Your task to perform on an android device: delete browsing data in the chrome app Image 0: 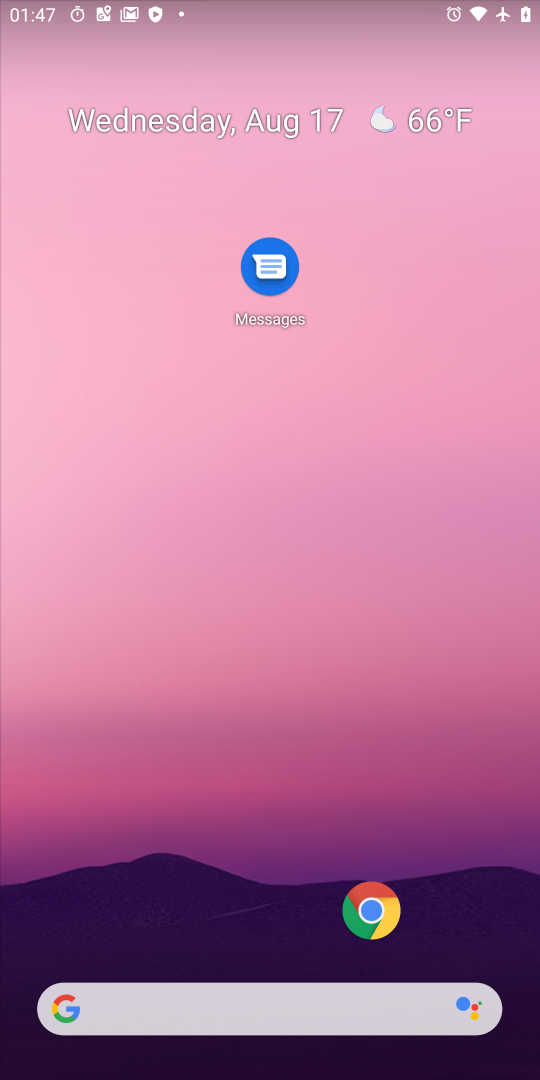
Step 0: drag from (162, 698) to (230, 4)
Your task to perform on an android device: delete browsing data in the chrome app Image 1: 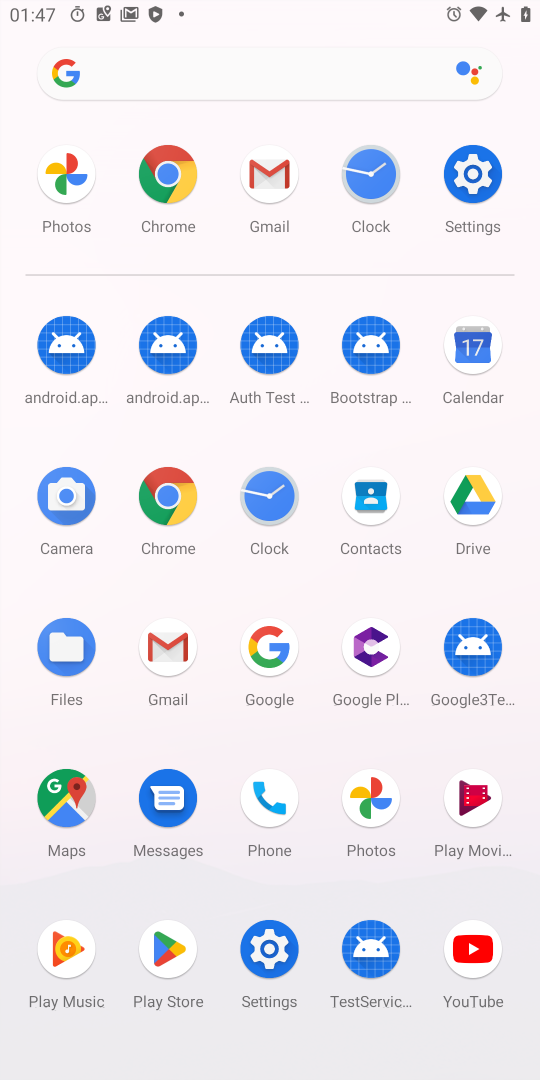
Step 1: click (162, 499)
Your task to perform on an android device: delete browsing data in the chrome app Image 2: 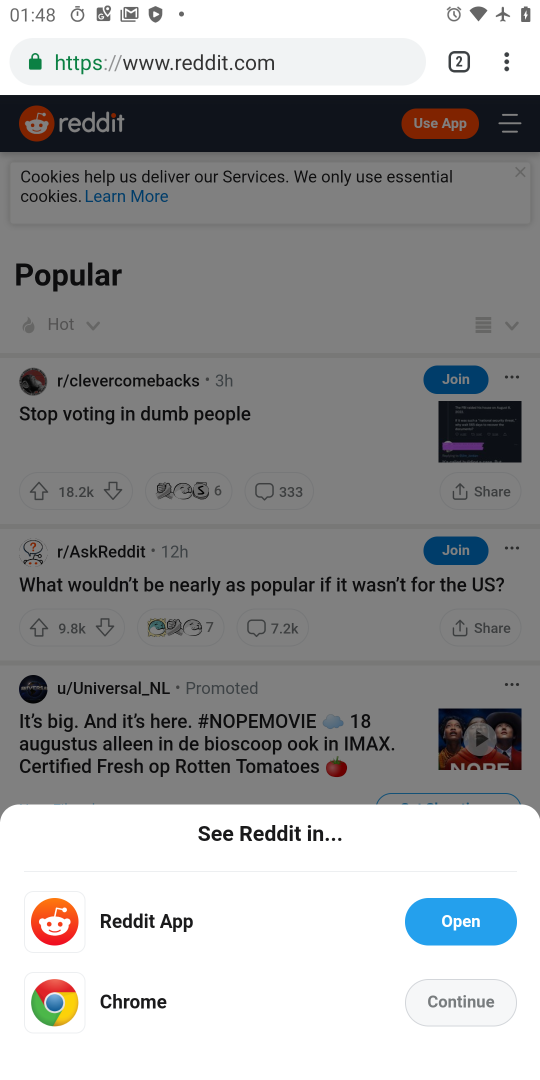
Step 2: drag from (504, 43) to (291, 418)
Your task to perform on an android device: delete browsing data in the chrome app Image 3: 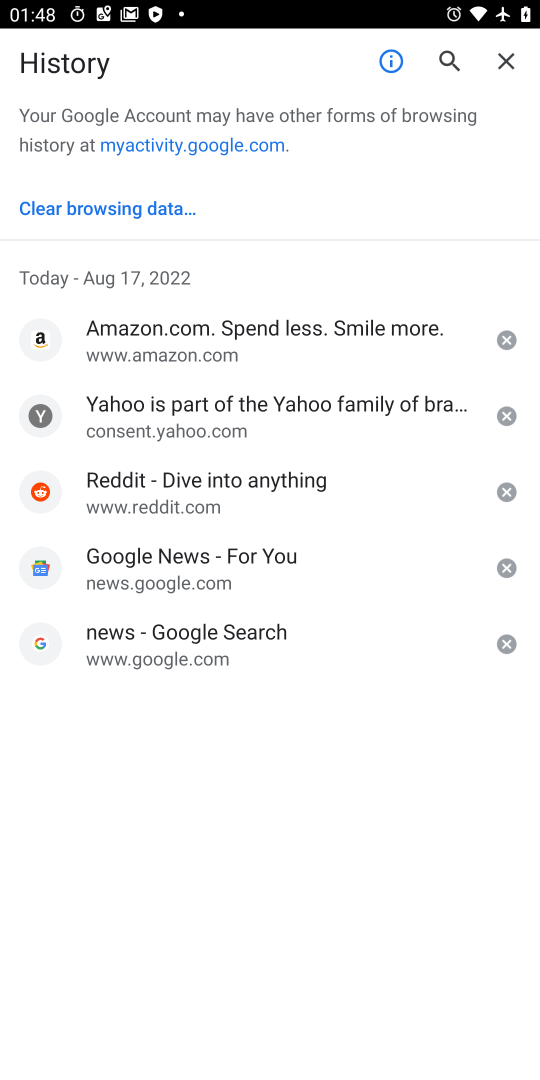
Step 3: click (161, 202)
Your task to perform on an android device: delete browsing data in the chrome app Image 4: 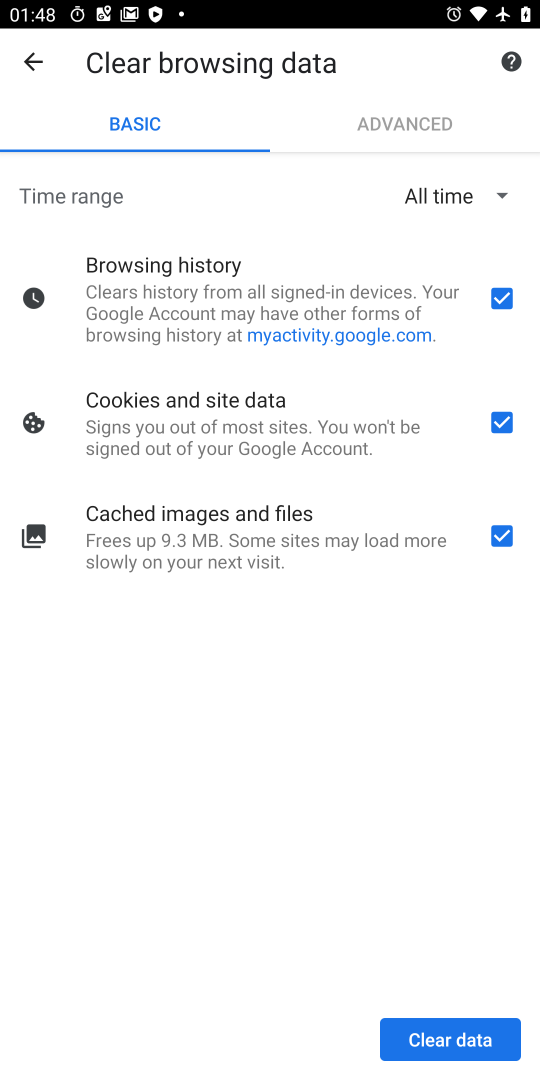
Step 4: click (455, 1039)
Your task to perform on an android device: delete browsing data in the chrome app Image 5: 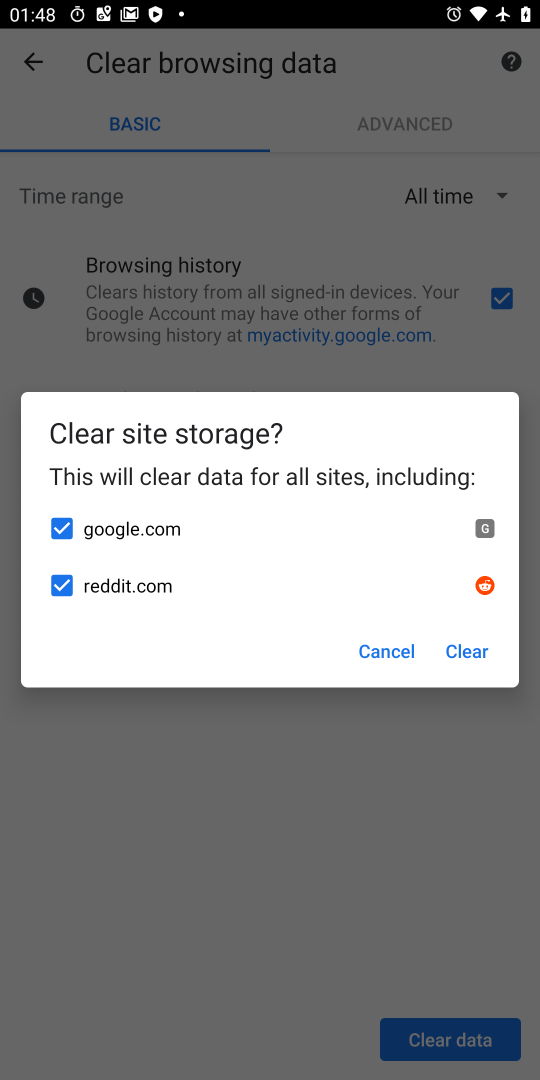
Step 5: click (462, 648)
Your task to perform on an android device: delete browsing data in the chrome app Image 6: 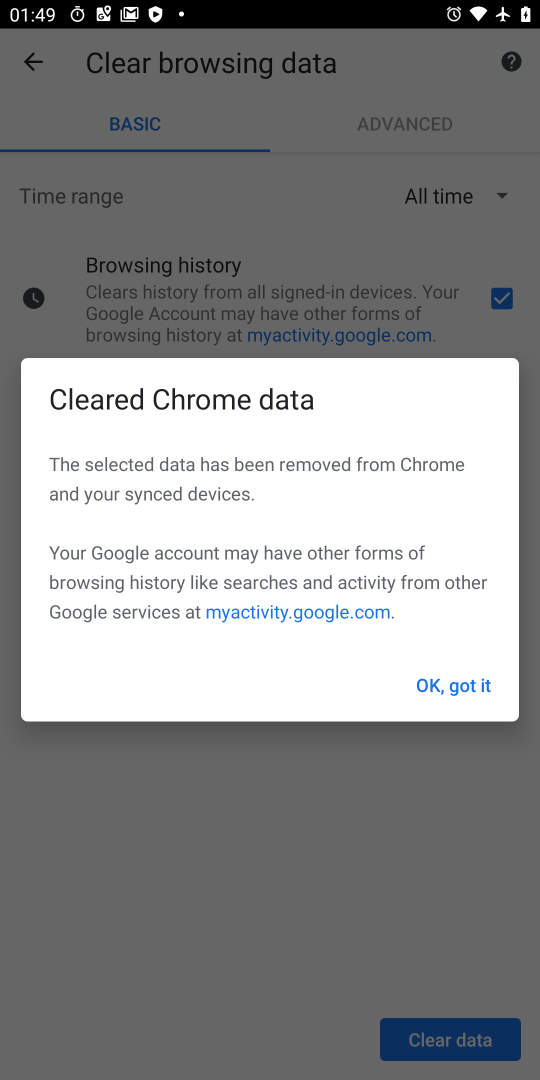
Step 6: click (441, 672)
Your task to perform on an android device: delete browsing data in the chrome app Image 7: 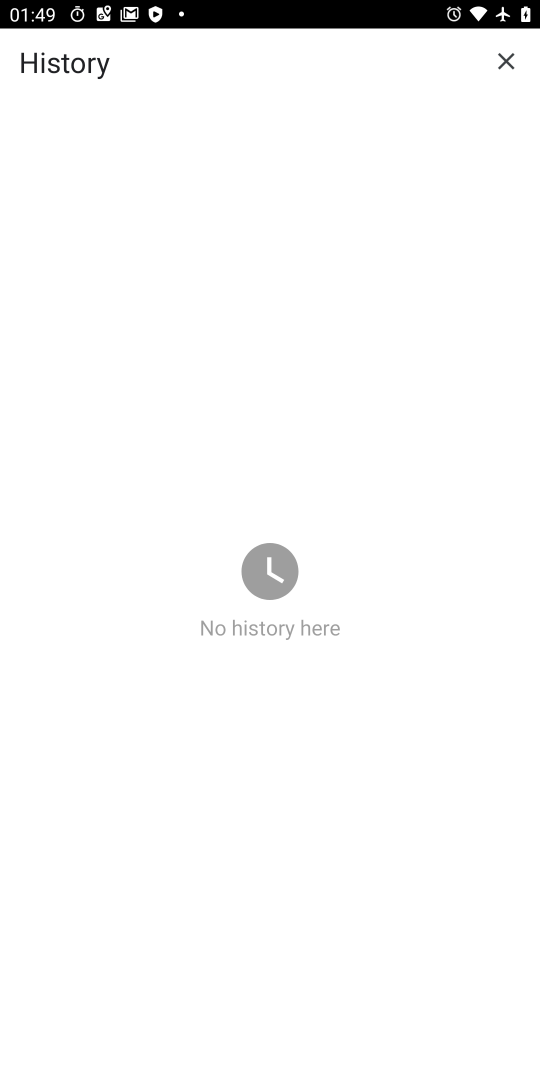
Step 7: task complete